Your task to perform on an android device: Open display settings Image 0: 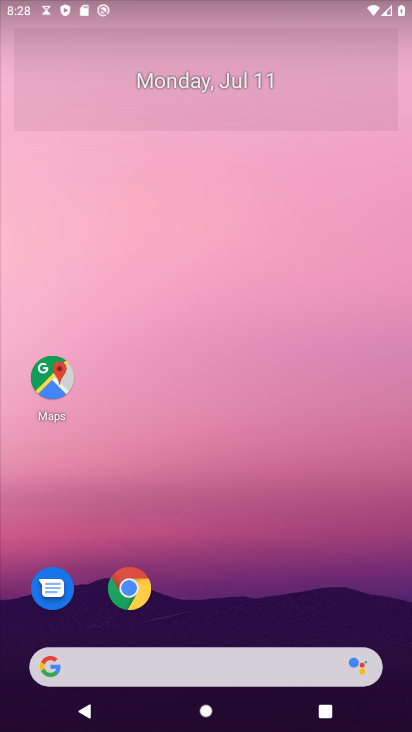
Step 0: drag from (255, 590) to (230, 182)
Your task to perform on an android device: Open display settings Image 1: 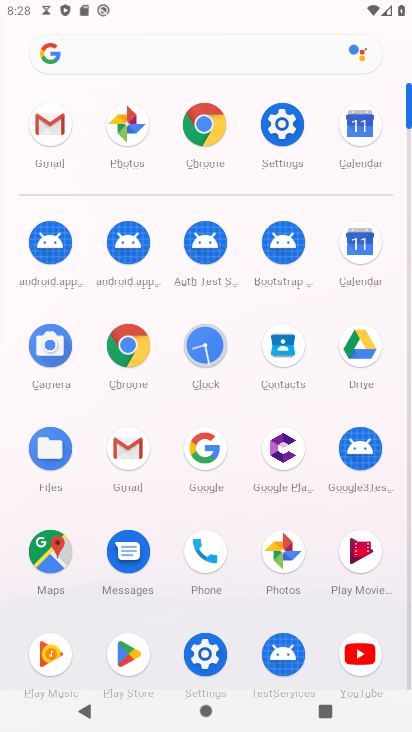
Step 1: click (276, 113)
Your task to perform on an android device: Open display settings Image 2: 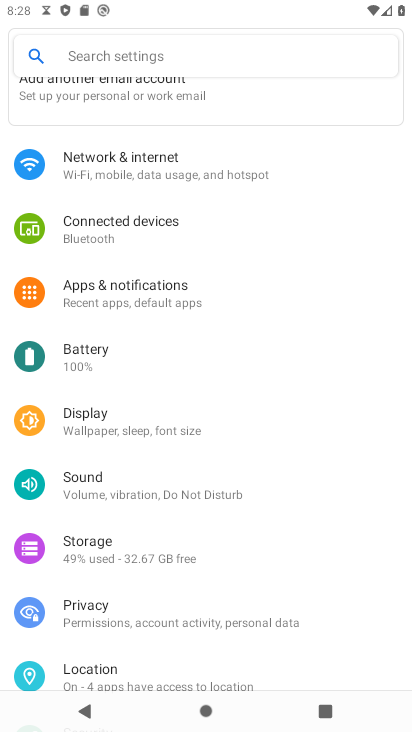
Step 2: click (89, 423)
Your task to perform on an android device: Open display settings Image 3: 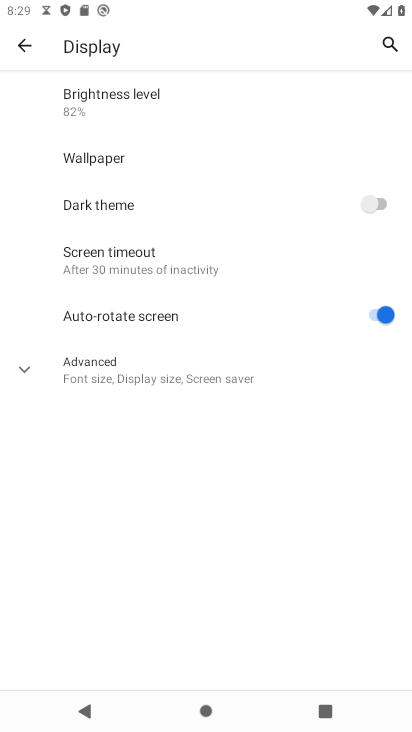
Step 3: task complete